Your task to perform on an android device: toggle data saver in the chrome app Image 0: 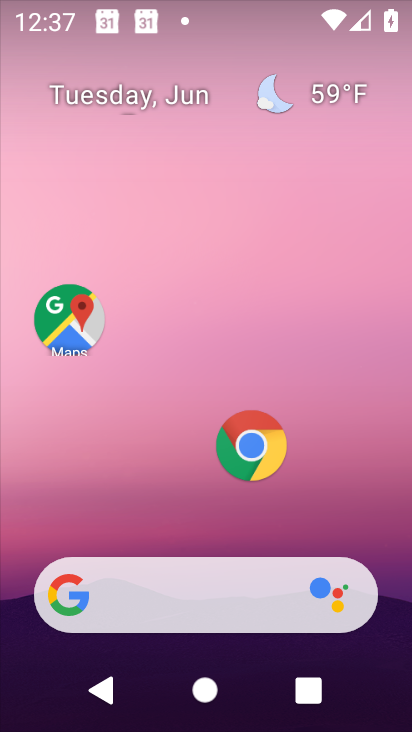
Step 0: click (257, 449)
Your task to perform on an android device: toggle data saver in the chrome app Image 1: 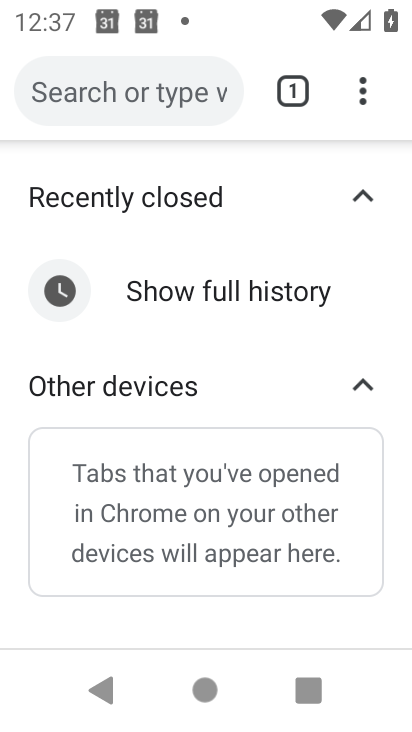
Step 1: click (376, 88)
Your task to perform on an android device: toggle data saver in the chrome app Image 2: 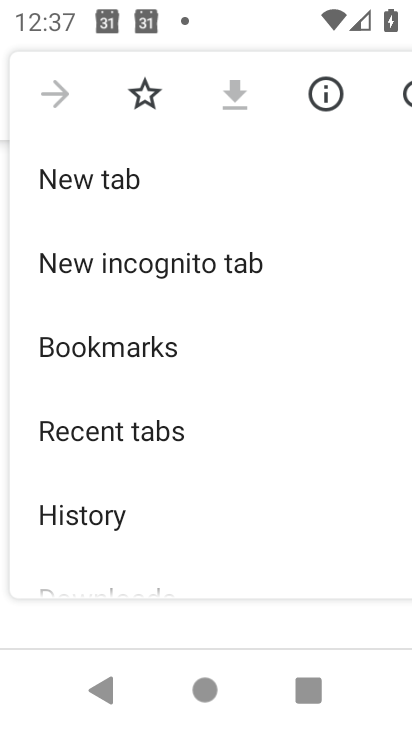
Step 2: drag from (157, 484) to (92, 1)
Your task to perform on an android device: toggle data saver in the chrome app Image 3: 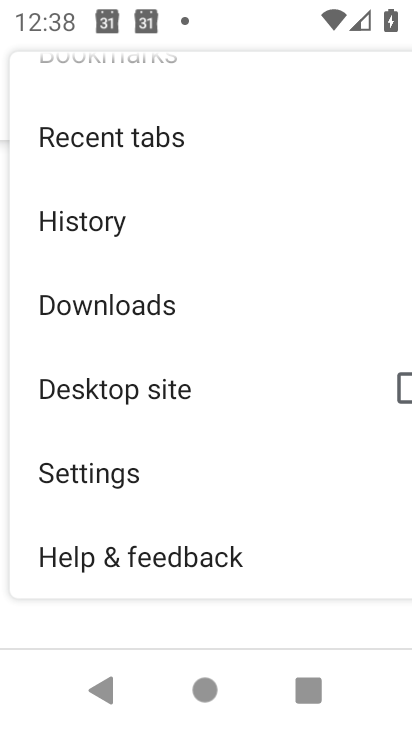
Step 3: drag from (182, 175) to (187, 523)
Your task to perform on an android device: toggle data saver in the chrome app Image 4: 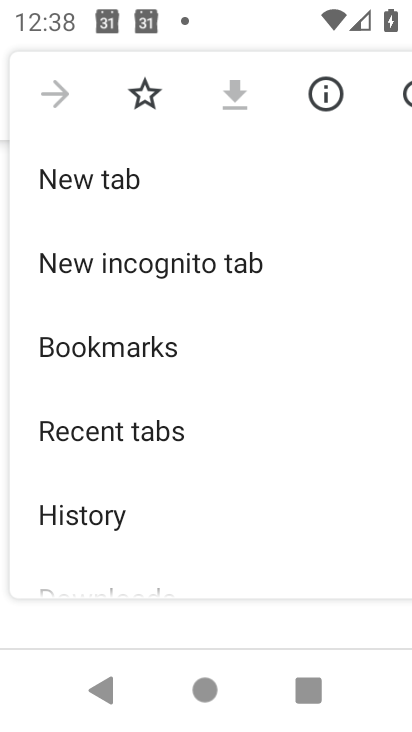
Step 4: drag from (151, 159) to (118, 530)
Your task to perform on an android device: toggle data saver in the chrome app Image 5: 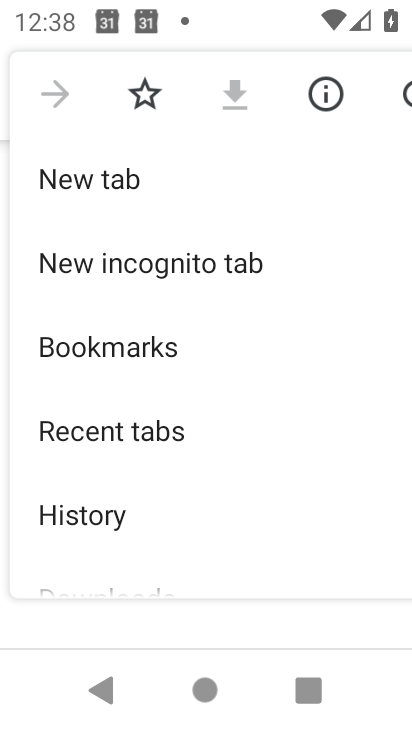
Step 5: drag from (157, 517) to (190, 85)
Your task to perform on an android device: toggle data saver in the chrome app Image 6: 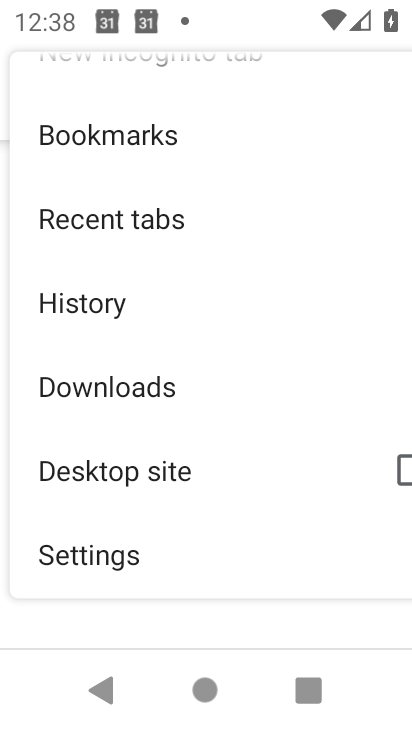
Step 6: click (97, 565)
Your task to perform on an android device: toggle data saver in the chrome app Image 7: 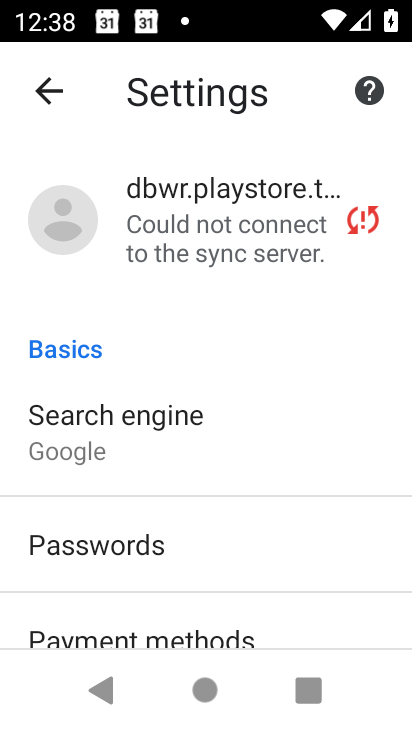
Step 7: drag from (97, 565) to (98, 40)
Your task to perform on an android device: toggle data saver in the chrome app Image 8: 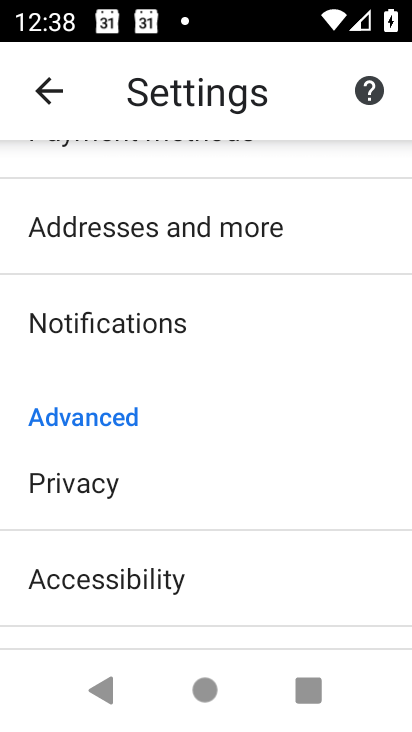
Step 8: drag from (108, 573) to (114, 70)
Your task to perform on an android device: toggle data saver in the chrome app Image 9: 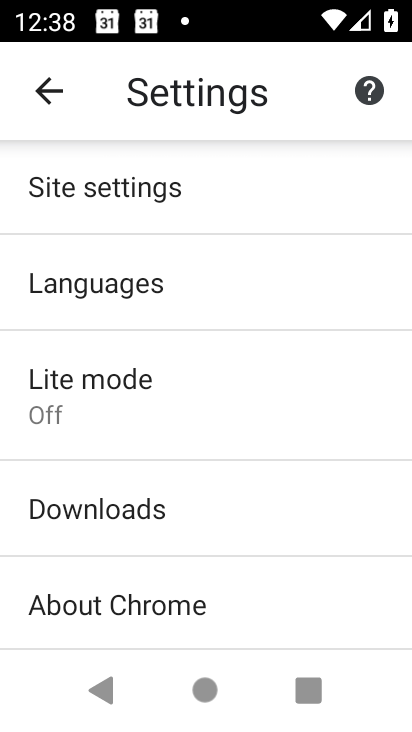
Step 9: click (99, 427)
Your task to perform on an android device: toggle data saver in the chrome app Image 10: 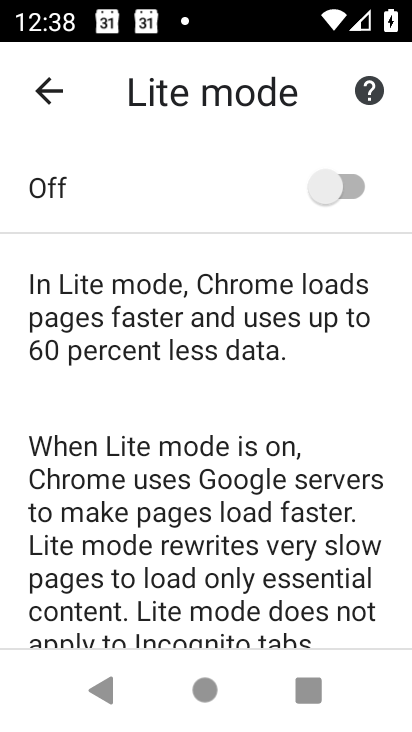
Step 10: click (337, 184)
Your task to perform on an android device: toggle data saver in the chrome app Image 11: 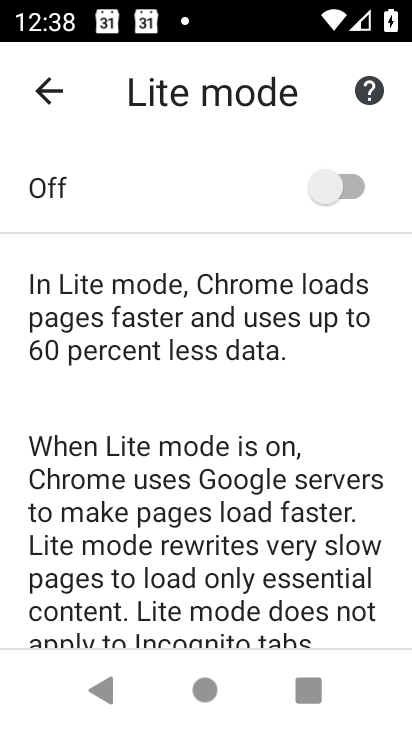
Step 11: click (337, 184)
Your task to perform on an android device: toggle data saver in the chrome app Image 12: 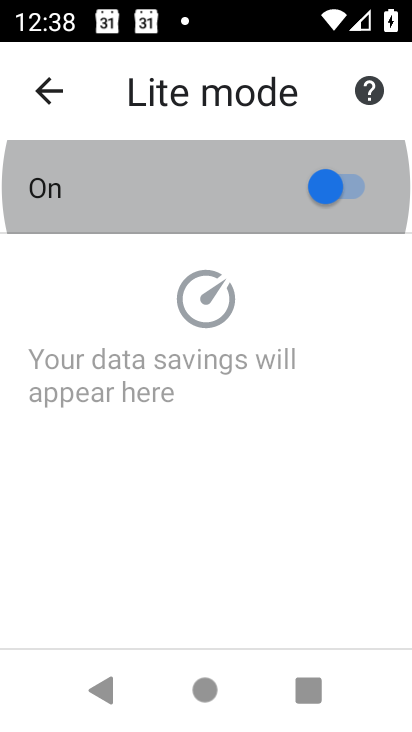
Step 12: click (337, 184)
Your task to perform on an android device: toggle data saver in the chrome app Image 13: 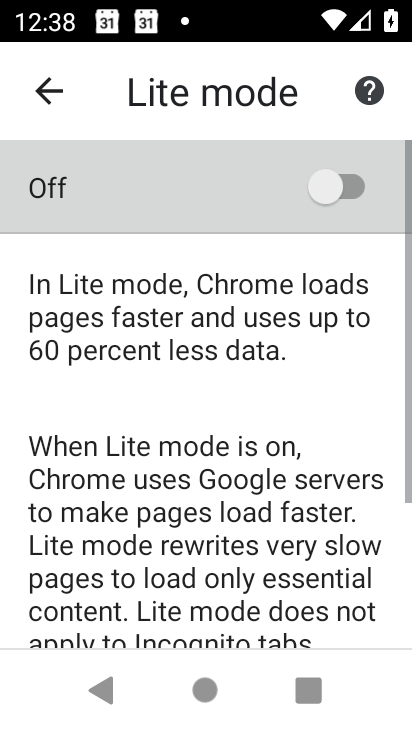
Step 13: click (337, 184)
Your task to perform on an android device: toggle data saver in the chrome app Image 14: 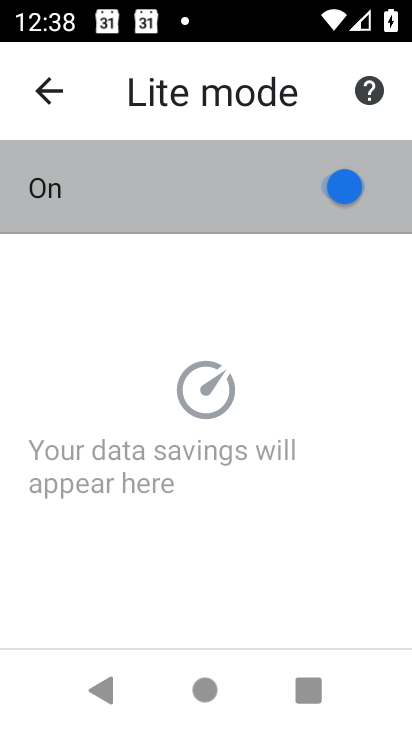
Step 14: click (337, 184)
Your task to perform on an android device: toggle data saver in the chrome app Image 15: 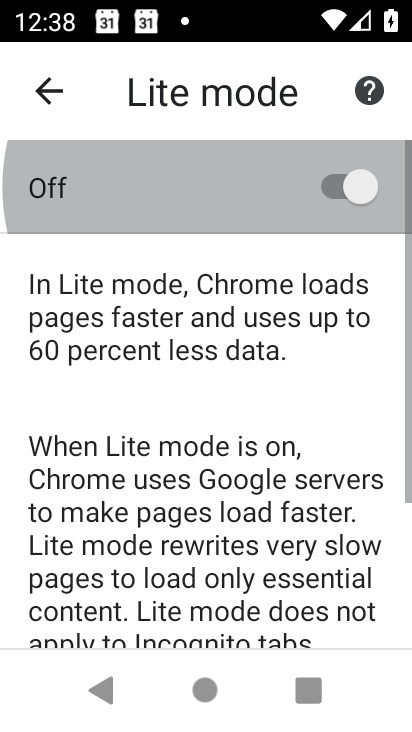
Step 15: click (337, 184)
Your task to perform on an android device: toggle data saver in the chrome app Image 16: 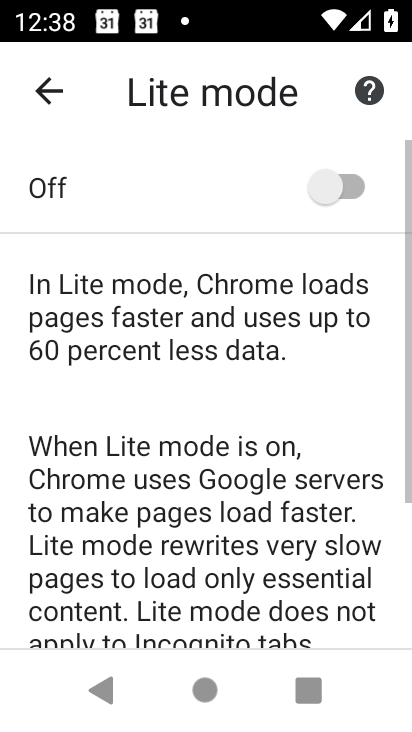
Step 16: task complete